Your task to perform on an android device: toggle show notifications on the lock screen Image 0: 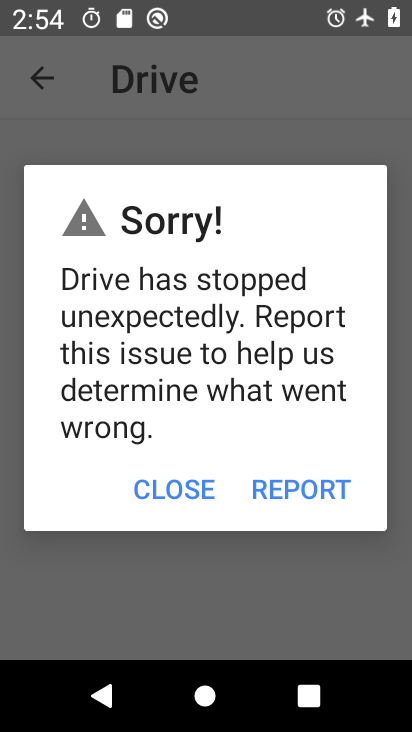
Step 0: press home button
Your task to perform on an android device: toggle show notifications on the lock screen Image 1: 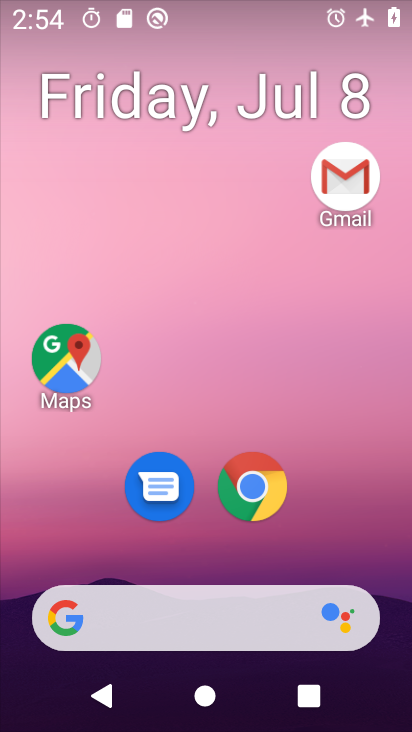
Step 1: drag from (363, 528) to (382, 123)
Your task to perform on an android device: toggle show notifications on the lock screen Image 2: 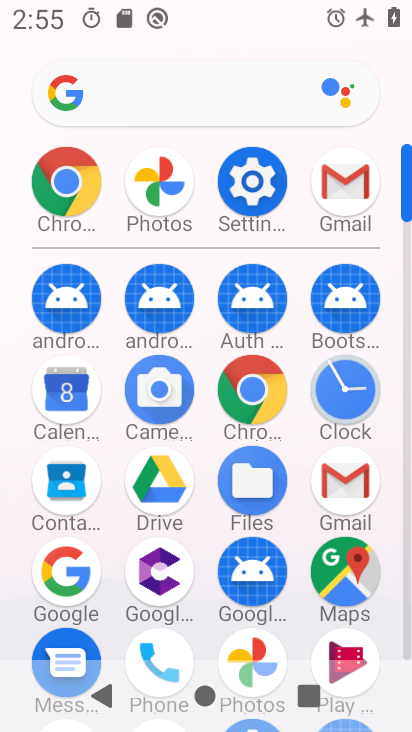
Step 2: click (252, 184)
Your task to perform on an android device: toggle show notifications on the lock screen Image 3: 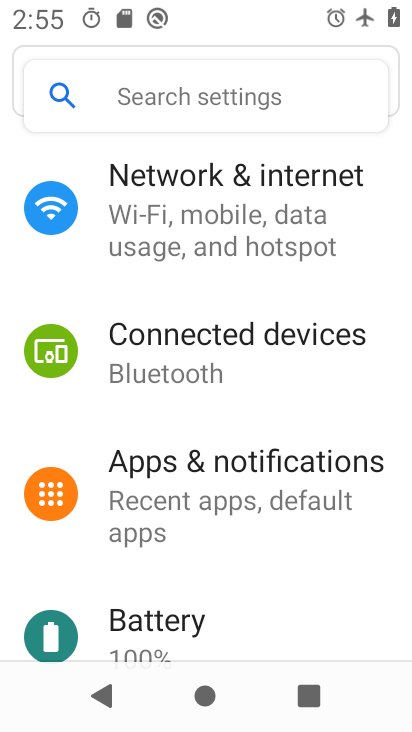
Step 3: drag from (364, 557) to (361, 372)
Your task to perform on an android device: toggle show notifications on the lock screen Image 4: 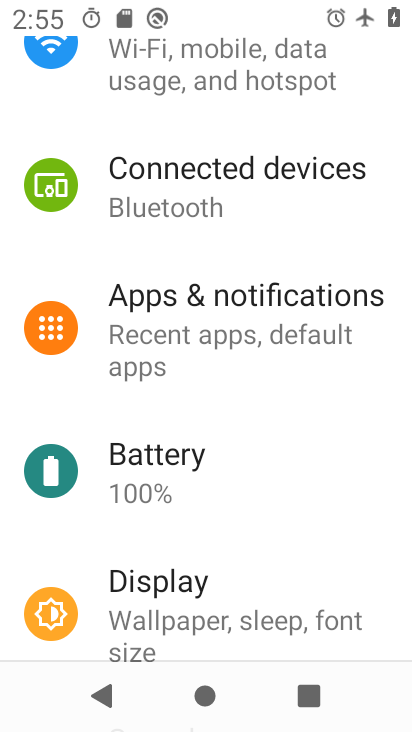
Step 4: drag from (352, 500) to (350, 363)
Your task to perform on an android device: toggle show notifications on the lock screen Image 5: 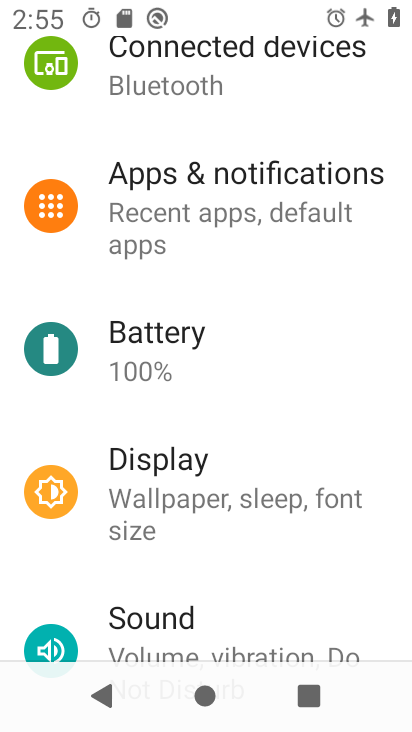
Step 5: drag from (359, 565) to (367, 394)
Your task to perform on an android device: toggle show notifications on the lock screen Image 6: 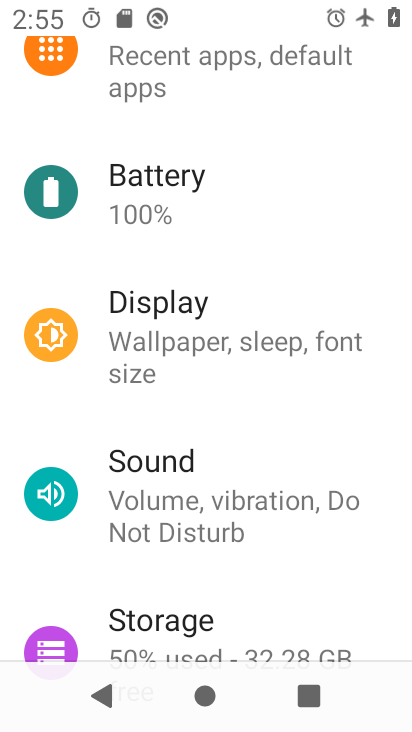
Step 6: drag from (368, 540) to (358, 291)
Your task to perform on an android device: toggle show notifications on the lock screen Image 7: 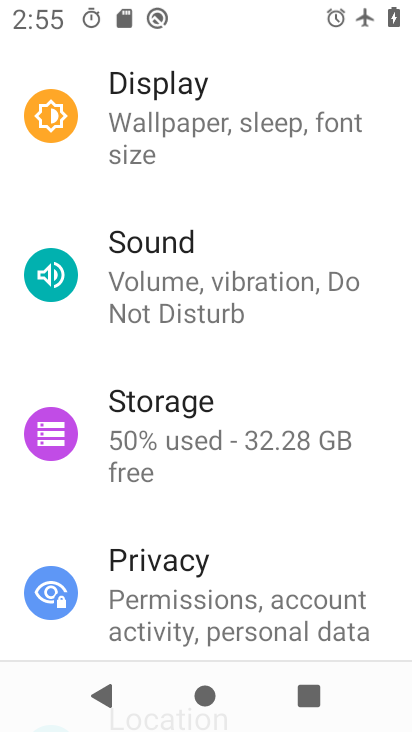
Step 7: drag from (364, 218) to (369, 359)
Your task to perform on an android device: toggle show notifications on the lock screen Image 8: 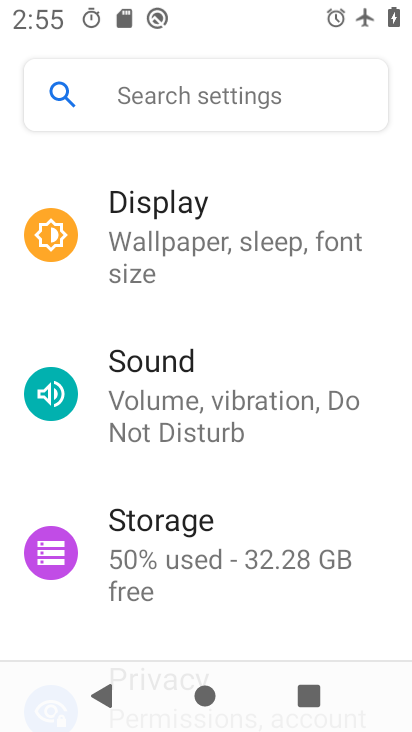
Step 8: drag from (359, 179) to (355, 341)
Your task to perform on an android device: toggle show notifications on the lock screen Image 9: 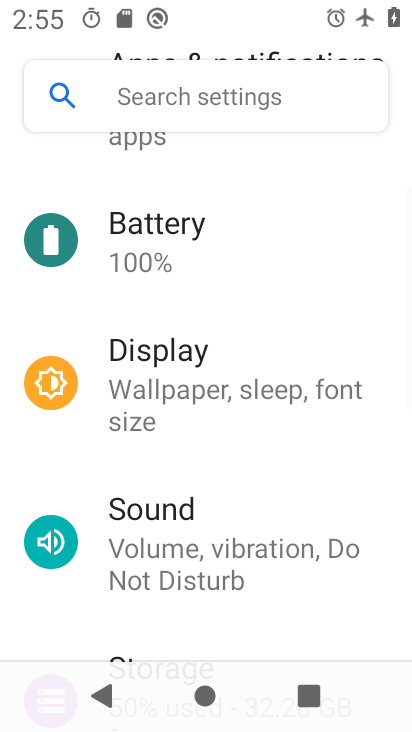
Step 9: drag from (372, 164) to (370, 356)
Your task to perform on an android device: toggle show notifications on the lock screen Image 10: 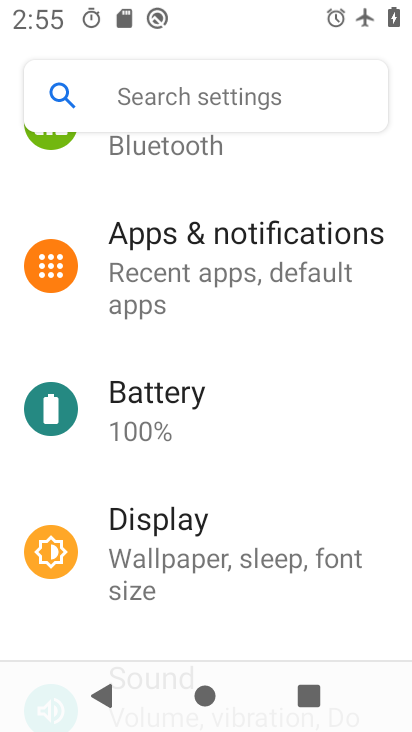
Step 10: click (252, 256)
Your task to perform on an android device: toggle show notifications on the lock screen Image 11: 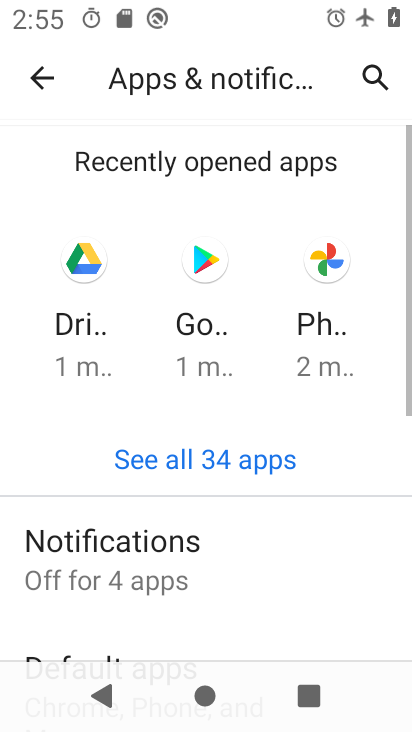
Step 11: drag from (298, 496) to (303, 292)
Your task to perform on an android device: toggle show notifications on the lock screen Image 12: 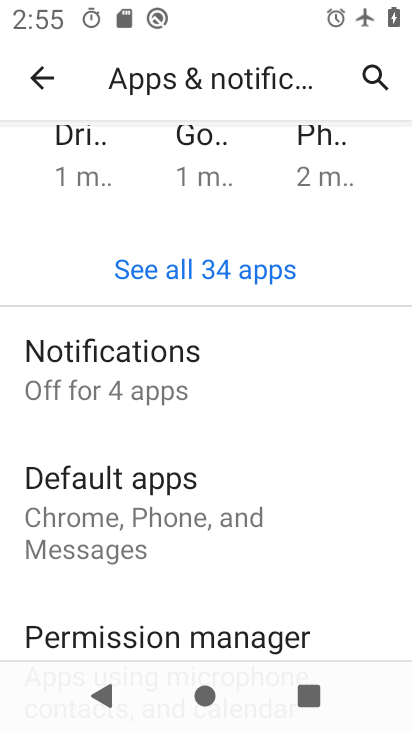
Step 12: click (172, 383)
Your task to perform on an android device: toggle show notifications on the lock screen Image 13: 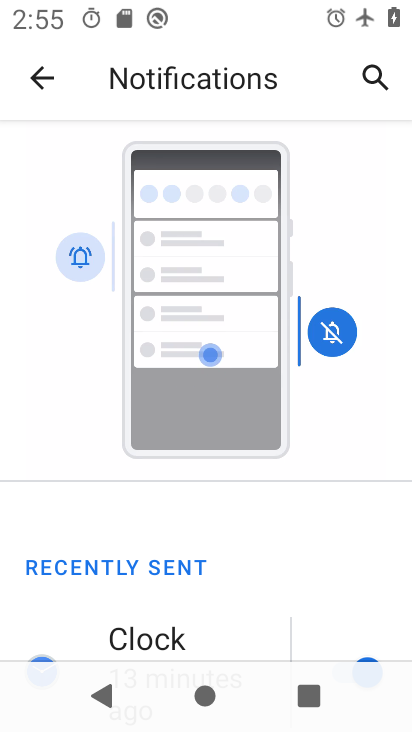
Step 13: drag from (300, 509) to (318, 263)
Your task to perform on an android device: toggle show notifications on the lock screen Image 14: 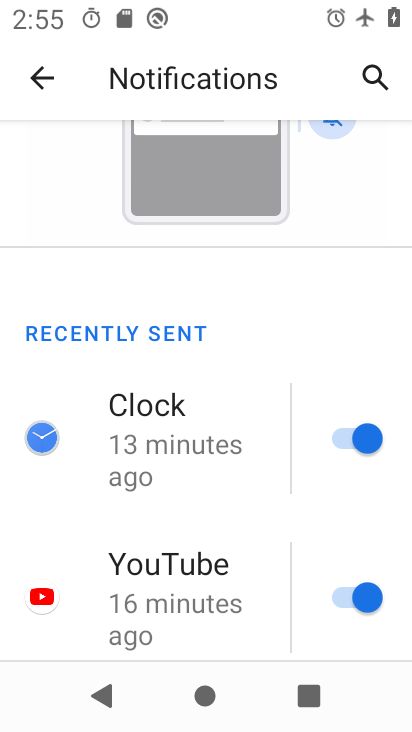
Step 14: drag from (261, 536) to (252, 324)
Your task to perform on an android device: toggle show notifications on the lock screen Image 15: 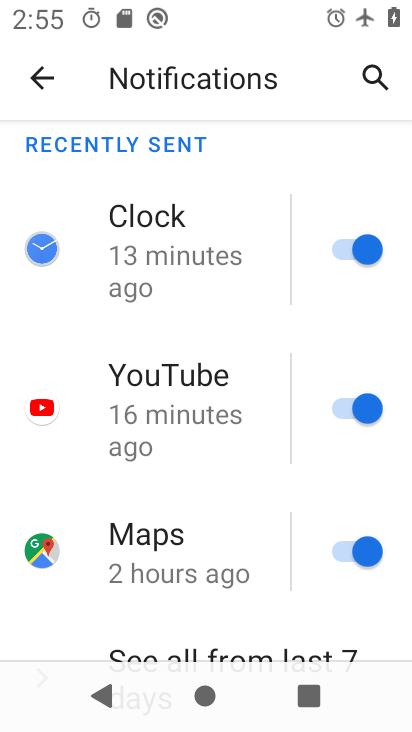
Step 15: drag from (260, 559) to (258, 317)
Your task to perform on an android device: toggle show notifications on the lock screen Image 16: 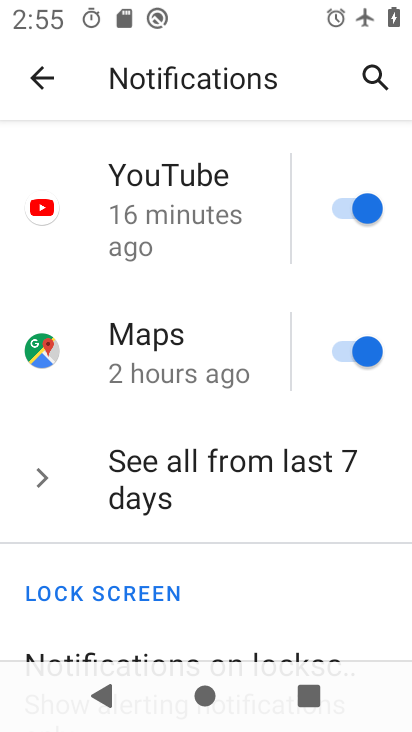
Step 16: drag from (252, 560) to (255, 384)
Your task to perform on an android device: toggle show notifications on the lock screen Image 17: 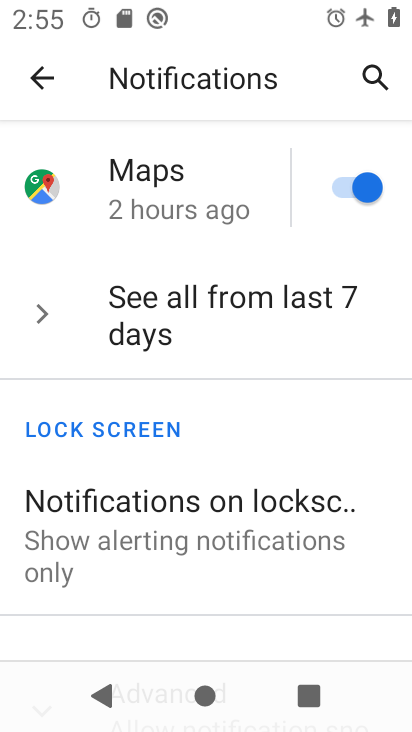
Step 17: drag from (246, 417) to (218, 172)
Your task to perform on an android device: toggle show notifications on the lock screen Image 18: 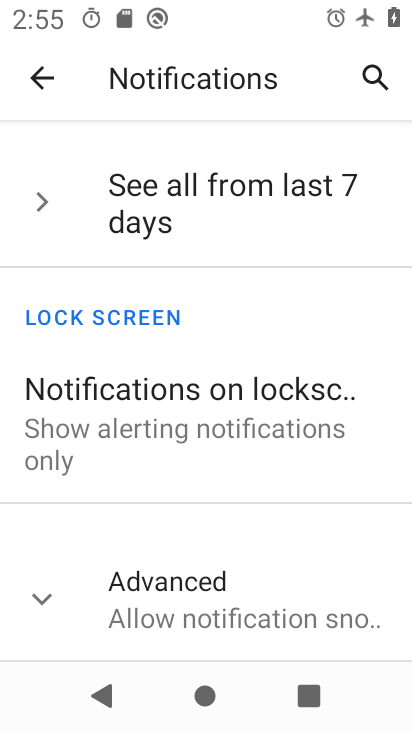
Step 18: click (265, 390)
Your task to perform on an android device: toggle show notifications on the lock screen Image 19: 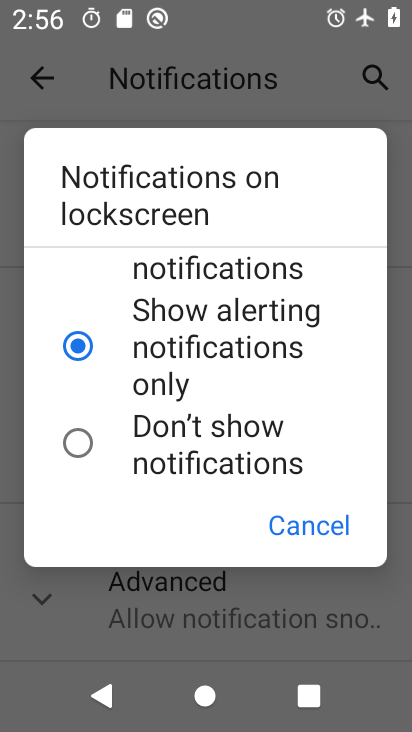
Step 19: drag from (179, 289) to (172, 422)
Your task to perform on an android device: toggle show notifications on the lock screen Image 20: 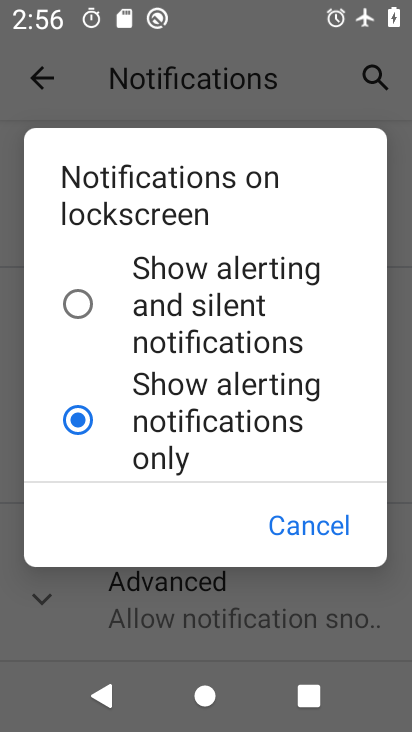
Step 20: click (82, 304)
Your task to perform on an android device: toggle show notifications on the lock screen Image 21: 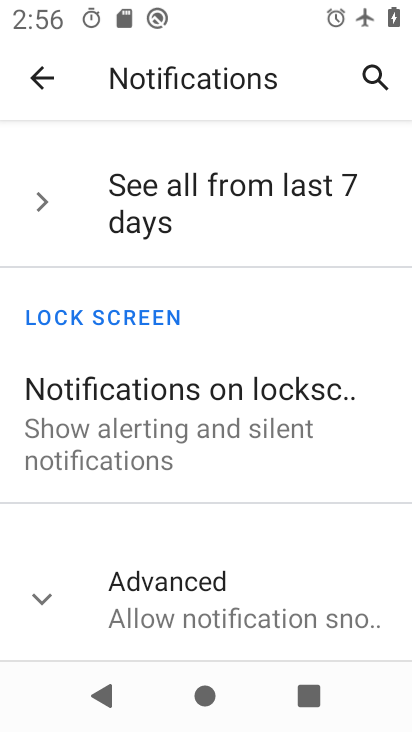
Step 21: task complete